Your task to perform on an android device: Search for "bose soundlink" on costco, select the first entry, add it to the cart, then select checkout. Image 0: 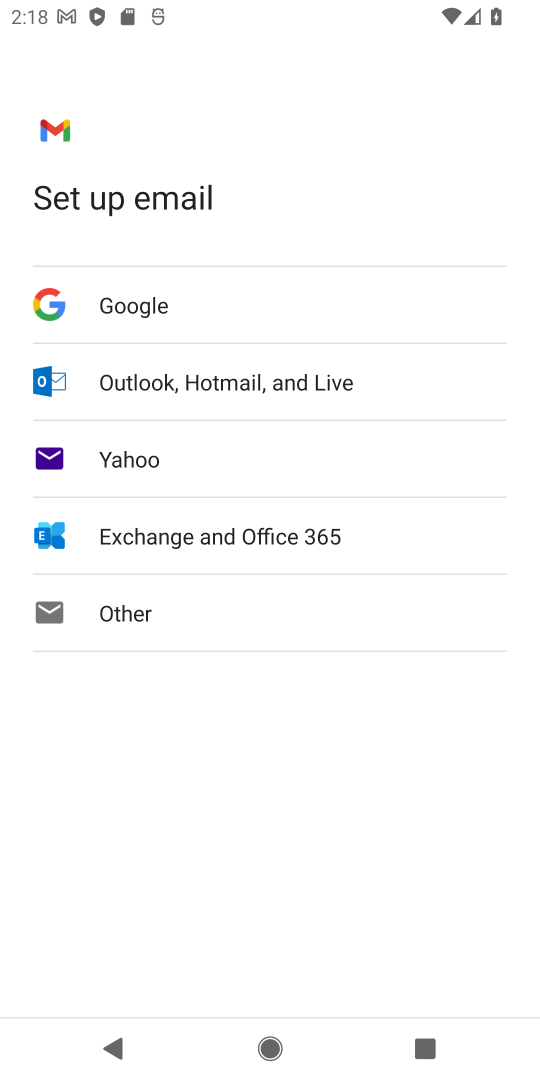
Step 0: press home button
Your task to perform on an android device: Search for "bose soundlink" on costco, select the first entry, add it to the cart, then select checkout. Image 1: 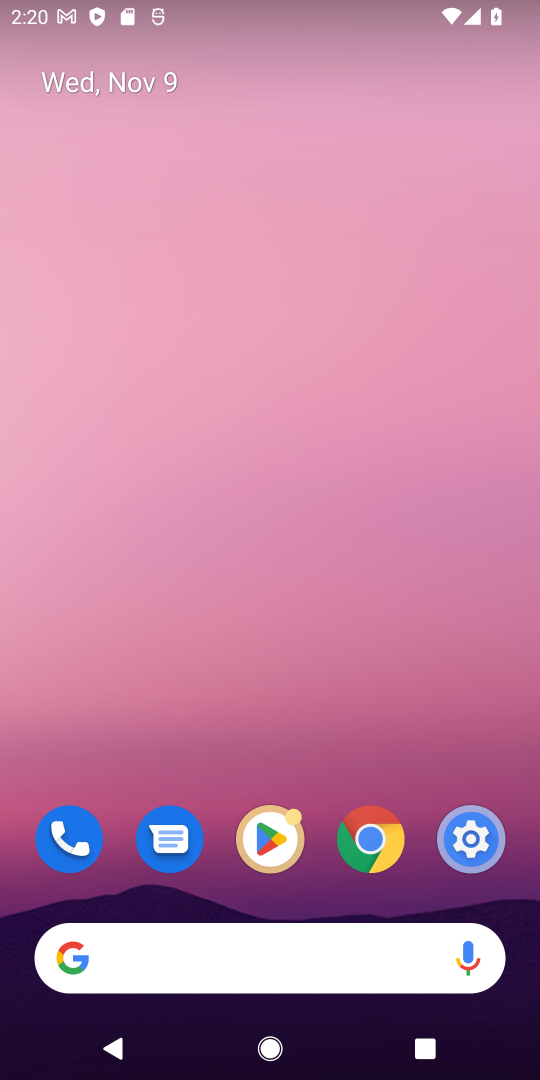
Step 1: click (270, 985)
Your task to perform on an android device: Search for "bose soundlink" on costco, select the first entry, add it to the cart, then select checkout. Image 2: 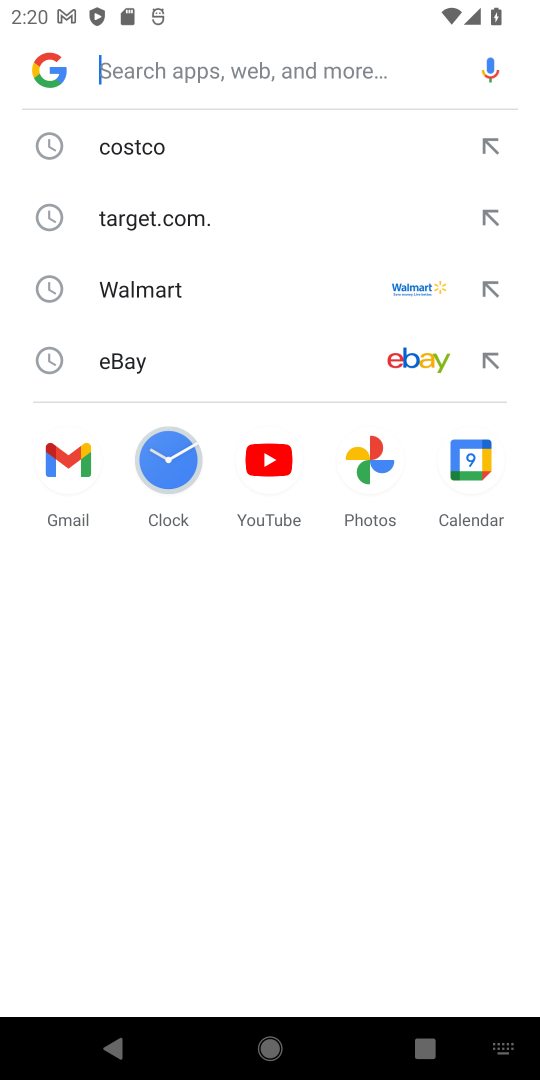
Step 2: click (186, 161)
Your task to perform on an android device: Search for "bose soundlink" on costco, select the first entry, add it to the cart, then select checkout. Image 3: 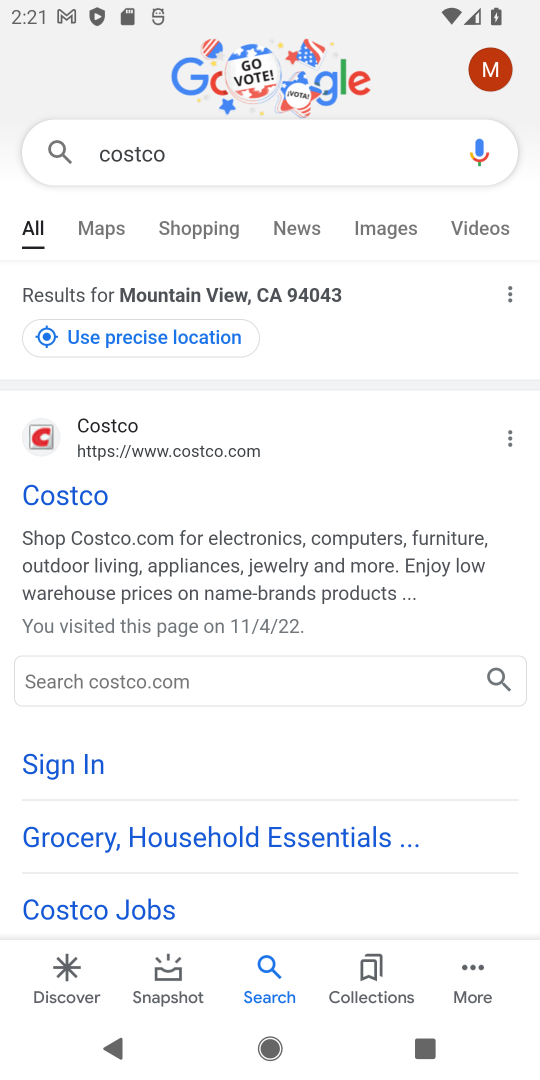
Step 3: click (86, 420)
Your task to perform on an android device: Search for "bose soundlink" on costco, select the first entry, add it to the cart, then select checkout. Image 4: 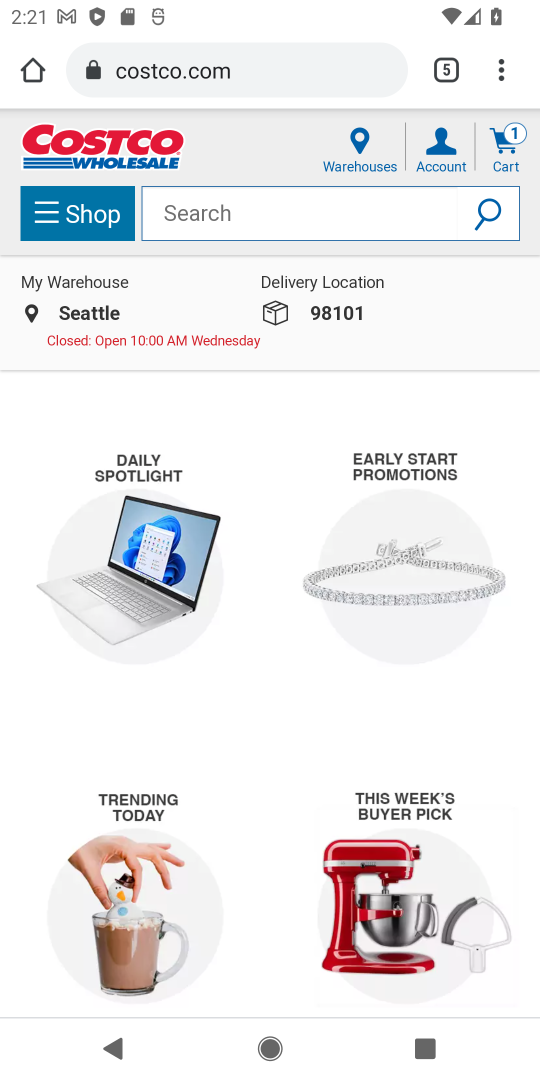
Step 4: task complete